Your task to perform on an android device: Search for "logitech g903" on walmart.com, select the first entry, add it to the cart, then select checkout. Image 0: 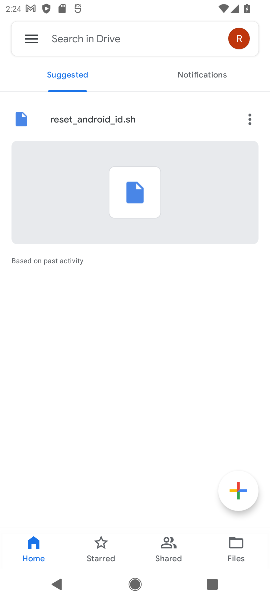
Step 0: press home button
Your task to perform on an android device: Search for "logitech g903" on walmart.com, select the first entry, add it to the cart, then select checkout. Image 1: 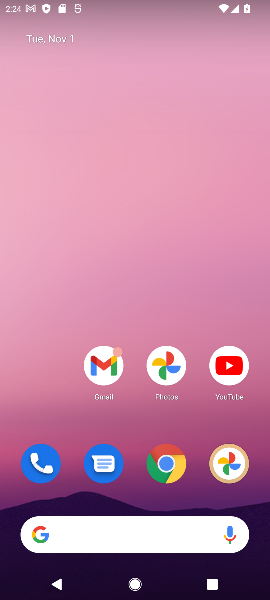
Step 1: drag from (136, 435) to (99, 15)
Your task to perform on an android device: Search for "logitech g903" on walmart.com, select the first entry, add it to the cart, then select checkout. Image 2: 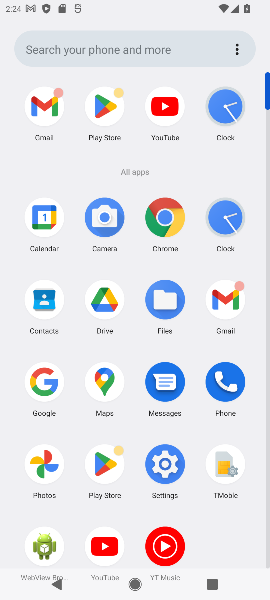
Step 2: click (167, 220)
Your task to perform on an android device: Search for "logitech g903" on walmart.com, select the first entry, add it to the cart, then select checkout. Image 3: 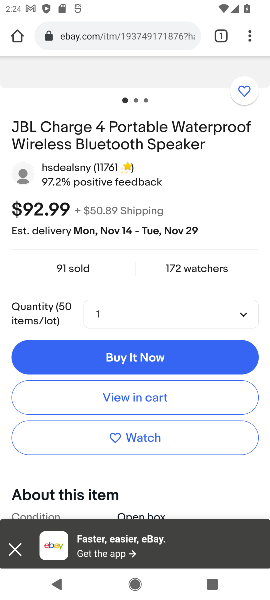
Step 3: click (162, 32)
Your task to perform on an android device: Search for "logitech g903" on walmart.com, select the first entry, add it to the cart, then select checkout. Image 4: 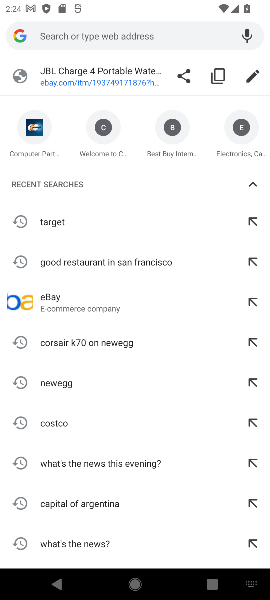
Step 4: type "walmart.com"
Your task to perform on an android device: Search for "logitech g903" on walmart.com, select the first entry, add it to the cart, then select checkout. Image 5: 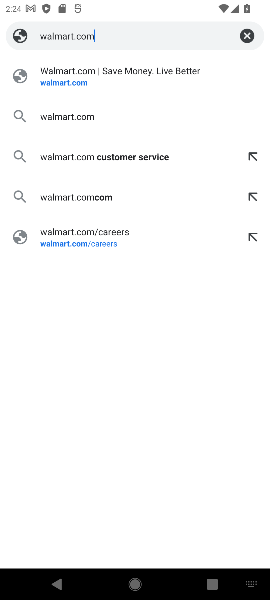
Step 5: press enter
Your task to perform on an android device: Search for "logitech g903" on walmart.com, select the first entry, add it to the cart, then select checkout. Image 6: 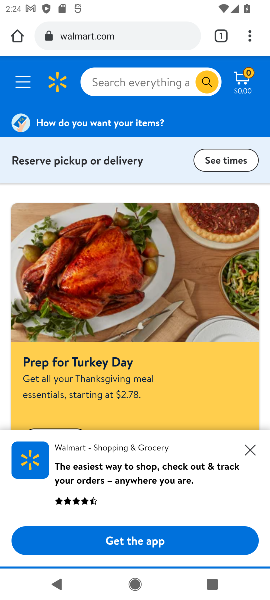
Step 6: click (141, 75)
Your task to perform on an android device: Search for "logitech g903" on walmart.com, select the first entry, add it to the cart, then select checkout. Image 7: 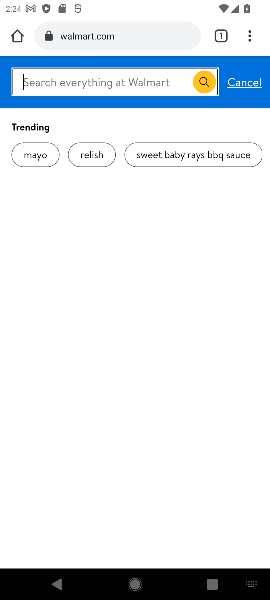
Step 7: type "logitech g903"
Your task to perform on an android device: Search for "logitech g903" on walmart.com, select the first entry, add it to the cart, then select checkout. Image 8: 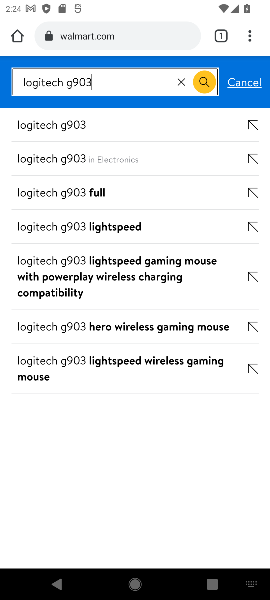
Step 8: press enter
Your task to perform on an android device: Search for "logitech g903" on walmart.com, select the first entry, add it to the cart, then select checkout. Image 9: 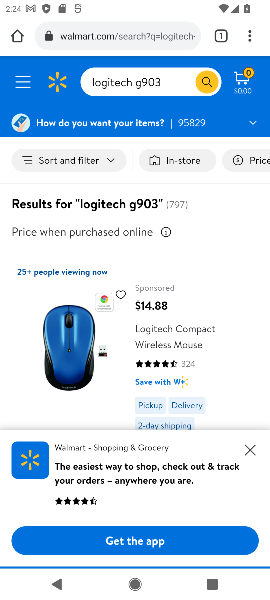
Step 9: drag from (100, 397) to (148, 127)
Your task to perform on an android device: Search for "logitech g903" on walmart.com, select the first entry, add it to the cart, then select checkout. Image 10: 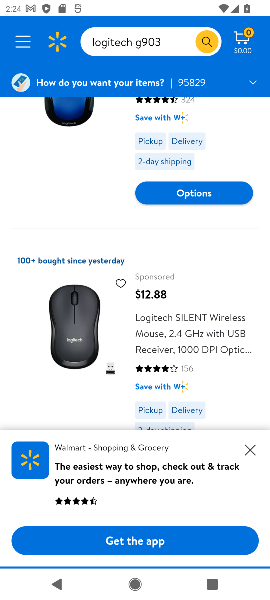
Step 10: drag from (196, 392) to (207, 99)
Your task to perform on an android device: Search for "logitech g903" on walmart.com, select the first entry, add it to the cart, then select checkout. Image 11: 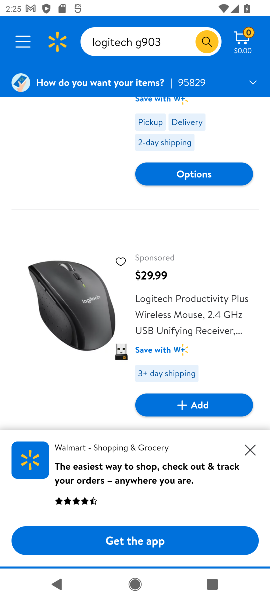
Step 11: drag from (111, 384) to (155, 72)
Your task to perform on an android device: Search for "logitech g903" on walmart.com, select the first entry, add it to the cart, then select checkout. Image 12: 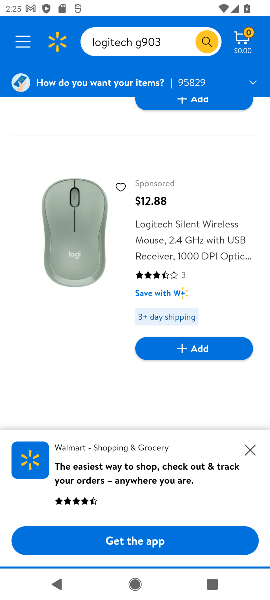
Step 12: drag from (126, 375) to (174, 130)
Your task to perform on an android device: Search for "logitech g903" on walmart.com, select the first entry, add it to the cart, then select checkout. Image 13: 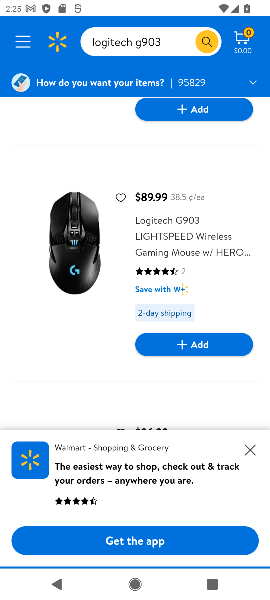
Step 13: click (154, 257)
Your task to perform on an android device: Search for "logitech g903" on walmart.com, select the first entry, add it to the cart, then select checkout. Image 14: 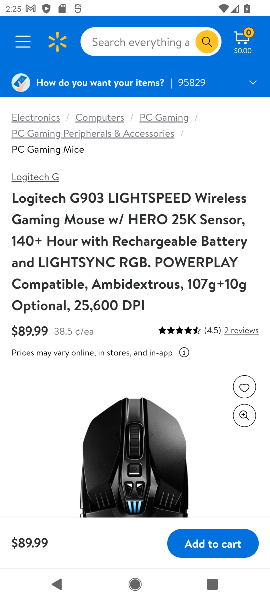
Step 14: drag from (121, 432) to (135, 318)
Your task to perform on an android device: Search for "logitech g903" on walmart.com, select the first entry, add it to the cart, then select checkout. Image 15: 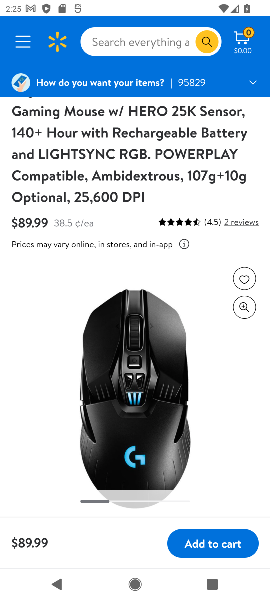
Step 15: drag from (162, 454) to (180, 194)
Your task to perform on an android device: Search for "logitech g903" on walmart.com, select the first entry, add it to the cart, then select checkout. Image 16: 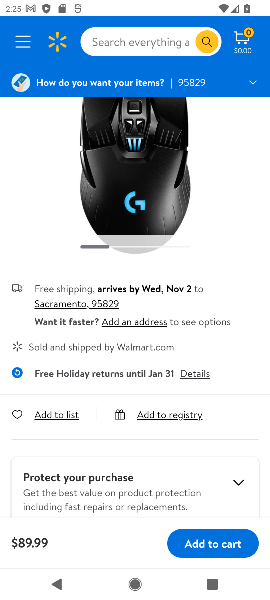
Step 16: click (220, 544)
Your task to perform on an android device: Search for "logitech g903" on walmart.com, select the first entry, add it to the cart, then select checkout. Image 17: 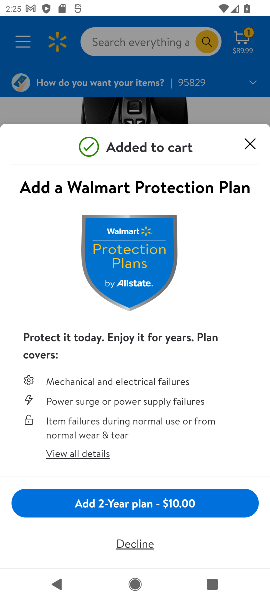
Step 17: click (131, 547)
Your task to perform on an android device: Search for "logitech g903" on walmart.com, select the first entry, add it to the cart, then select checkout. Image 18: 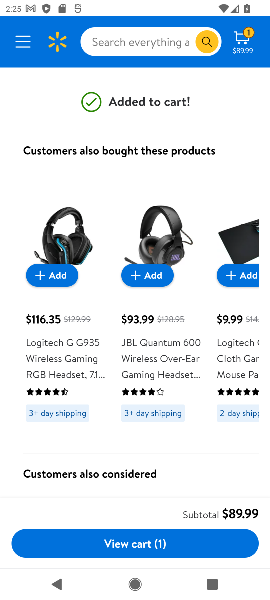
Step 18: click (131, 547)
Your task to perform on an android device: Search for "logitech g903" on walmart.com, select the first entry, add it to the cart, then select checkout. Image 19: 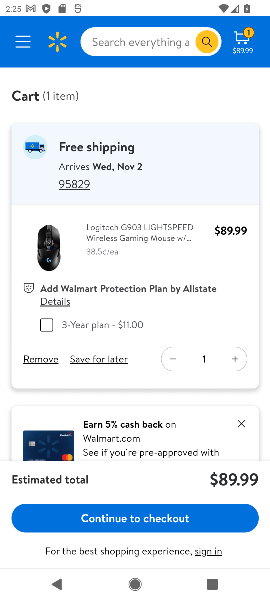
Step 19: click (127, 523)
Your task to perform on an android device: Search for "logitech g903" on walmart.com, select the first entry, add it to the cart, then select checkout. Image 20: 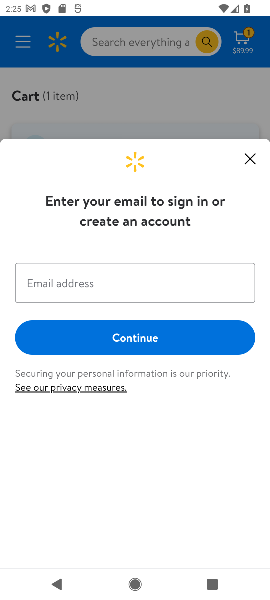
Step 20: task complete